Your task to perform on an android device: toggle show notifications on the lock screen Image 0: 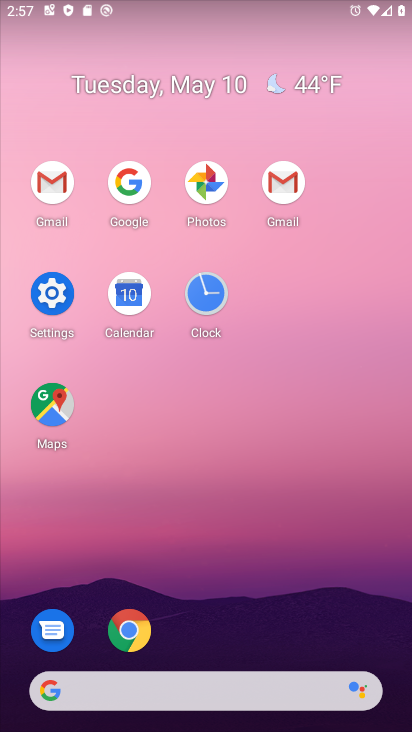
Step 0: click (45, 295)
Your task to perform on an android device: toggle show notifications on the lock screen Image 1: 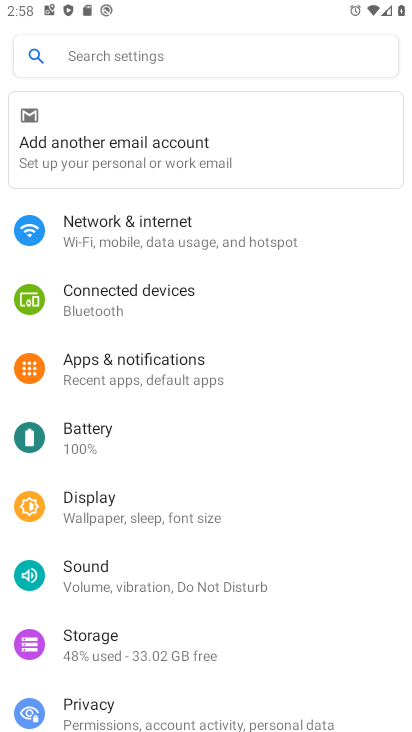
Step 1: click (145, 374)
Your task to perform on an android device: toggle show notifications on the lock screen Image 2: 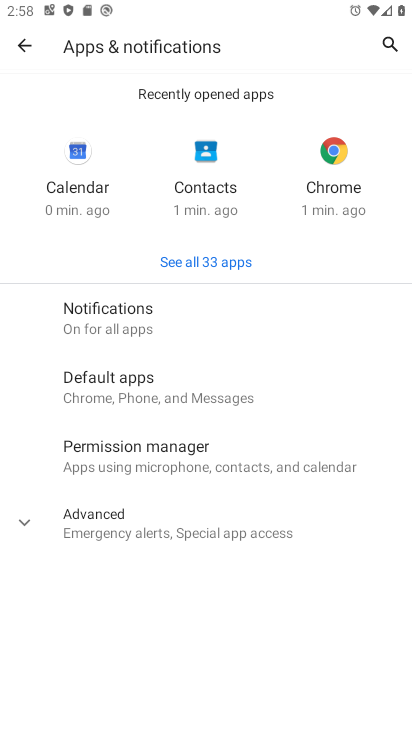
Step 2: click (118, 314)
Your task to perform on an android device: toggle show notifications on the lock screen Image 3: 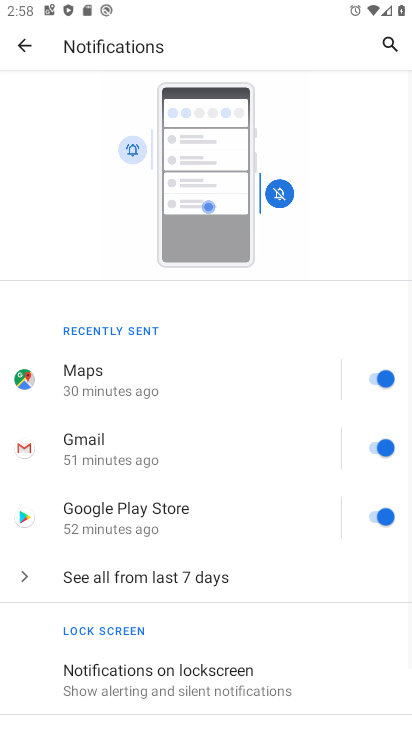
Step 3: click (157, 668)
Your task to perform on an android device: toggle show notifications on the lock screen Image 4: 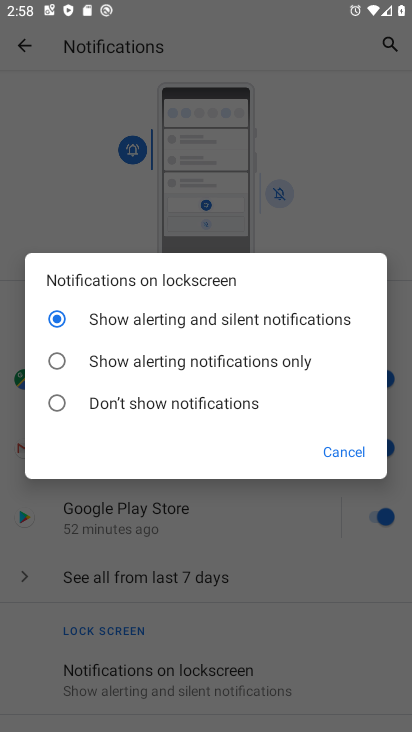
Step 4: click (83, 357)
Your task to perform on an android device: toggle show notifications on the lock screen Image 5: 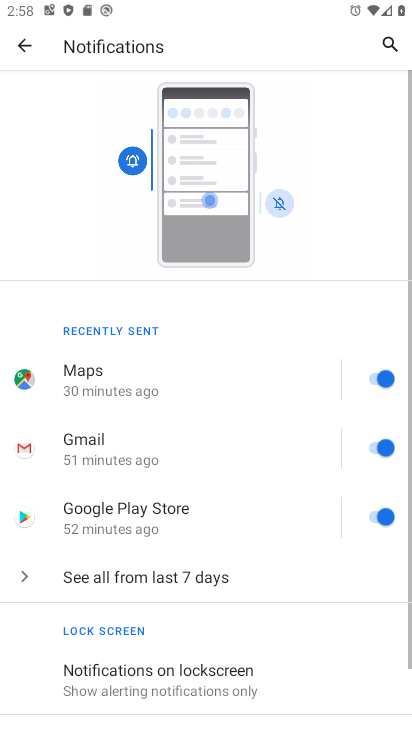
Step 5: task complete